Your task to perform on an android device: check storage Image 0: 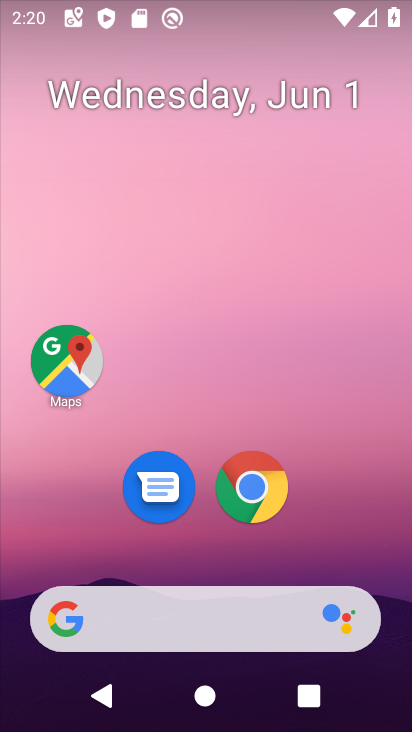
Step 0: drag from (367, 529) to (370, 211)
Your task to perform on an android device: check storage Image 1: 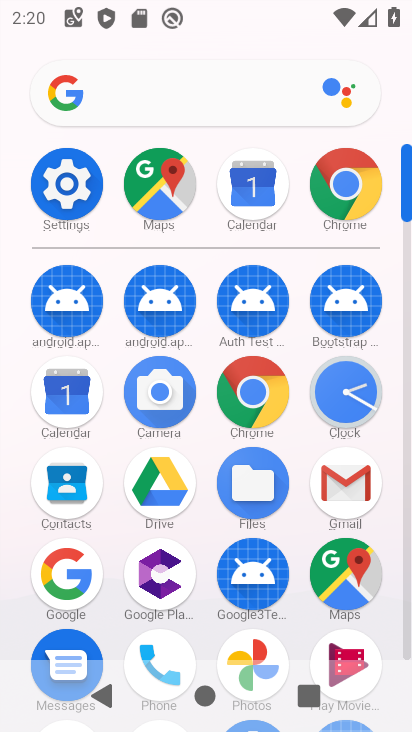
Step 1: click (96, 198)
Your task to perform on an android device: check storage Image 2: 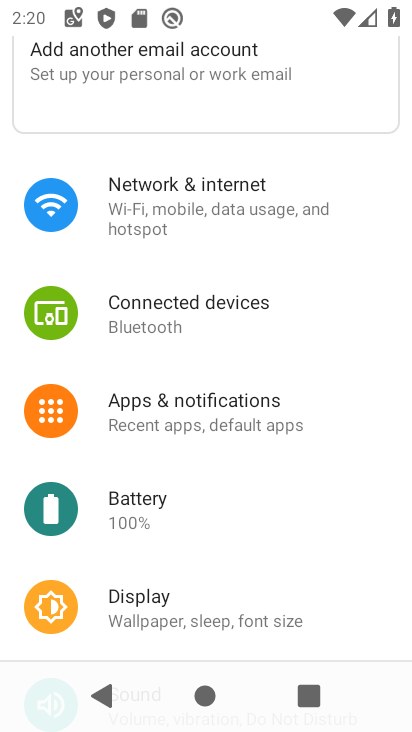
Step 2: drag from (348, 457) to (343, 365)
Your task to perform on an android device: check storage Image 3: 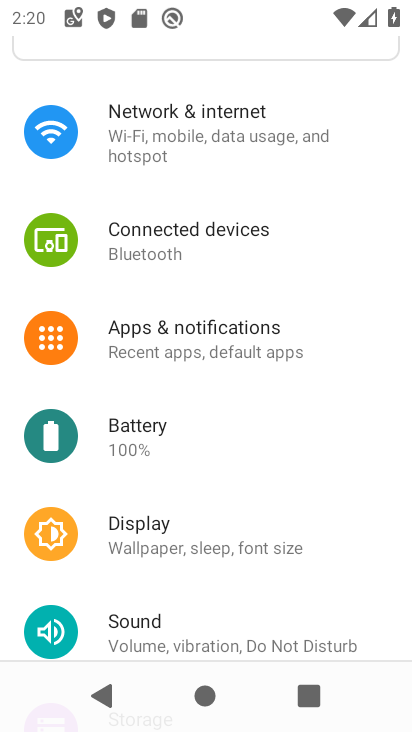
Step 3: drag from (336, 518) to (344, 407)
Your task to perform on an android device: check storage Image 4: 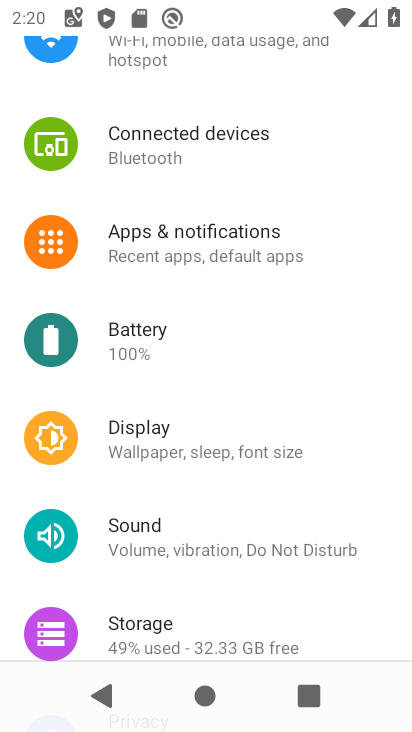
Step 4: drag from (355, 607) to (363, 396)
Your task to perform on an android device: check storage Image 5: 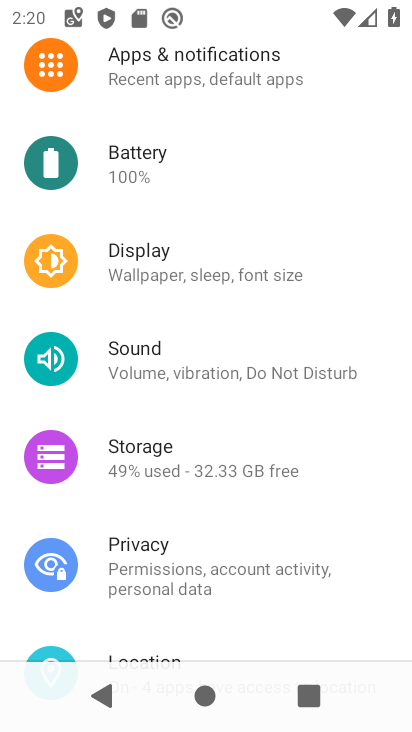
Step 5: drag from (353, 527) to (362, 377)
Your task to perform on an android device: check storage Image 6: 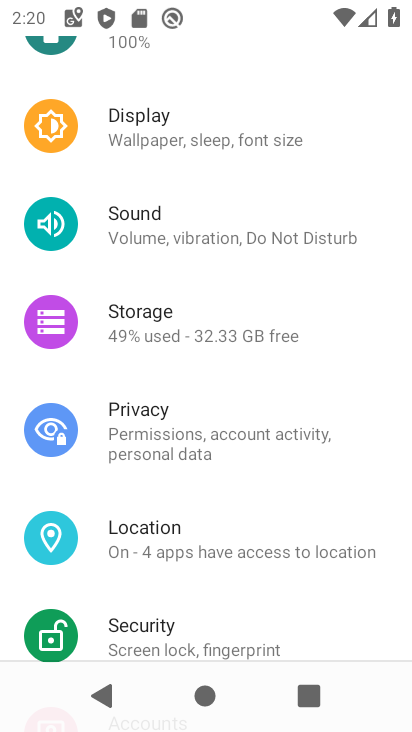
Step 6: click (275, 343)
Your task to perform on an android device: check storage Image 7: 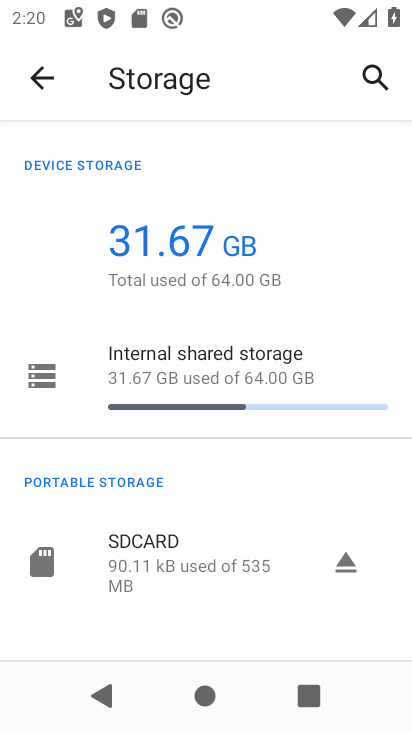
Step 7: task complete